Your task to perform on an android device: find snoozed emails in the gmail app Image 0: 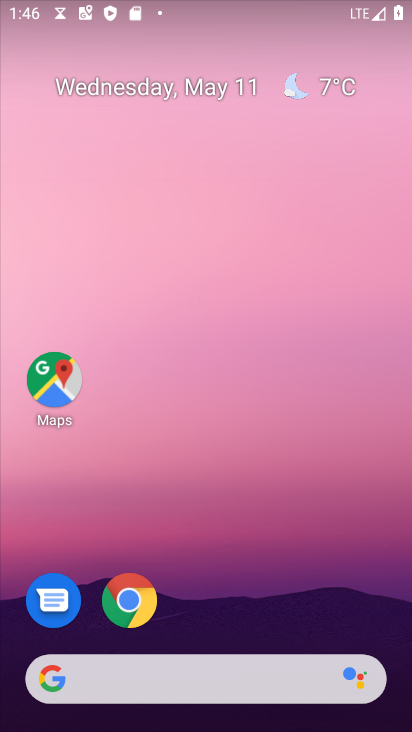
Step 0: drag from (245, 395) to (208, 101)
Your task to perform on an android device: find snoozed emails in the gmail app Image 1: 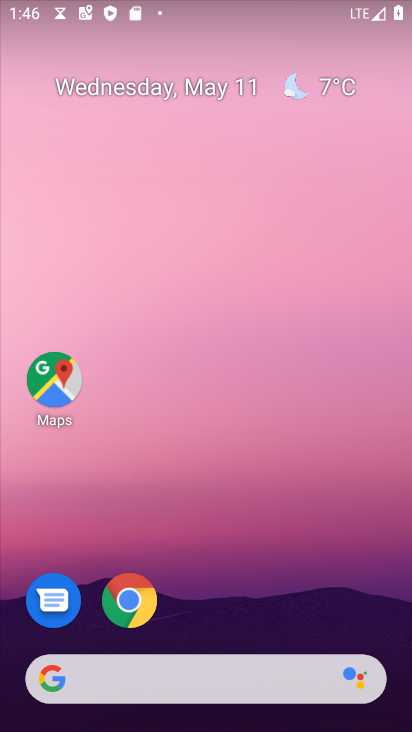
Step 1: drag from (246, 551) to (198, 79)
Your task to perform on an android device: find snoozed emails in the gmail app Image 2: 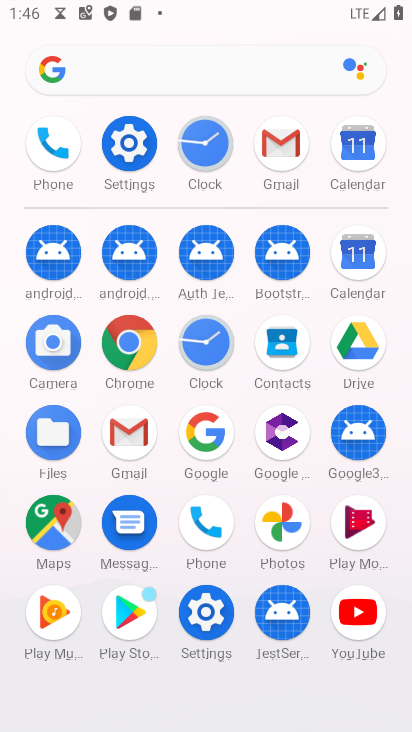
Step 2: click (278, 121)
Your task to perform on an android device: find snoozed emails in the gmail app Image 3: 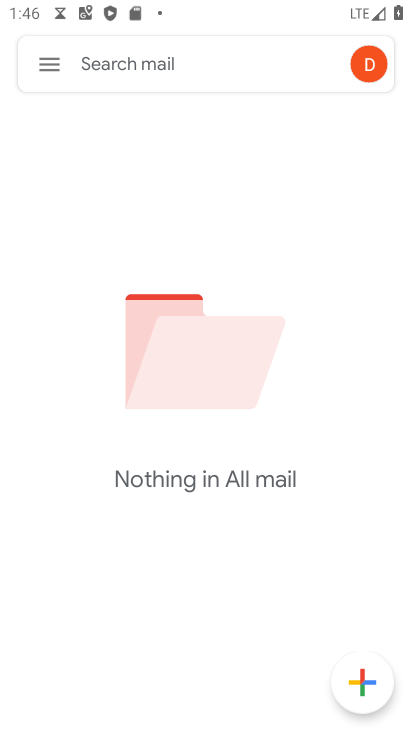
Step 3: click (44, 66)
Your task to perform on an android device: find snoozed emails in the gmail app Image 4: 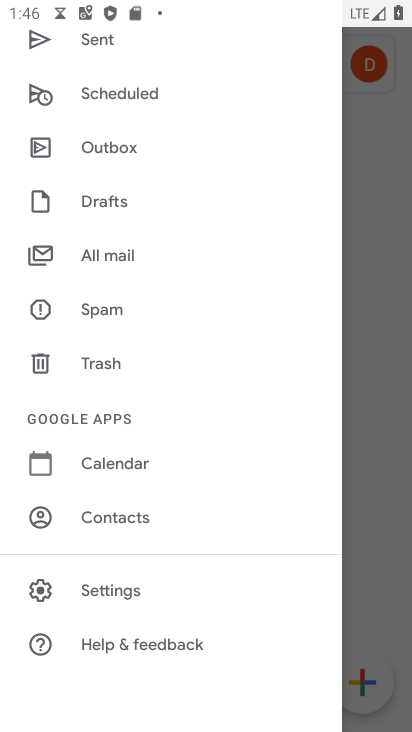
Step 4: drag from (161, 128) to (128, 705)
Your task to perform on an android device: find snoozed emails in the gmail app Image 5: 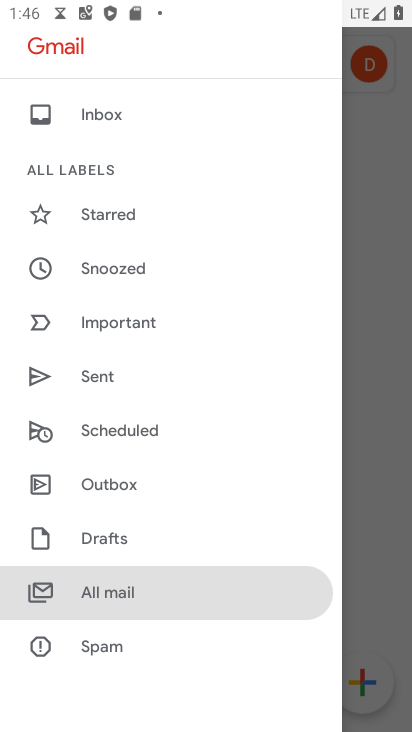
Step 5: click (148, 271)
Your task to perform on an android device: find snoozed emails in the gmail app Image 6: 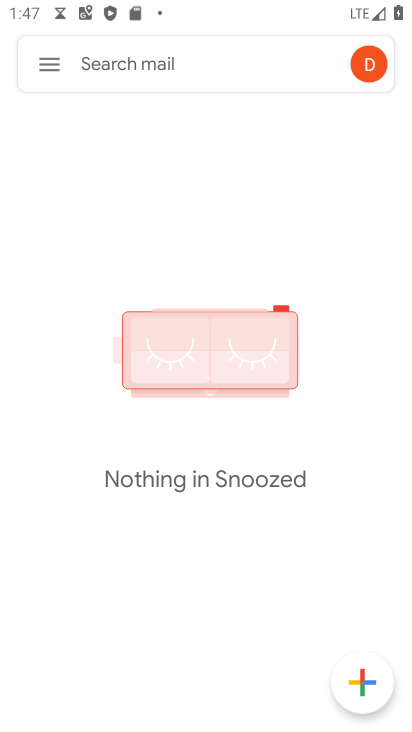
Step 6: task complete